Your task to perform on an android device: Open Chrome and go to the settings page Image 0: 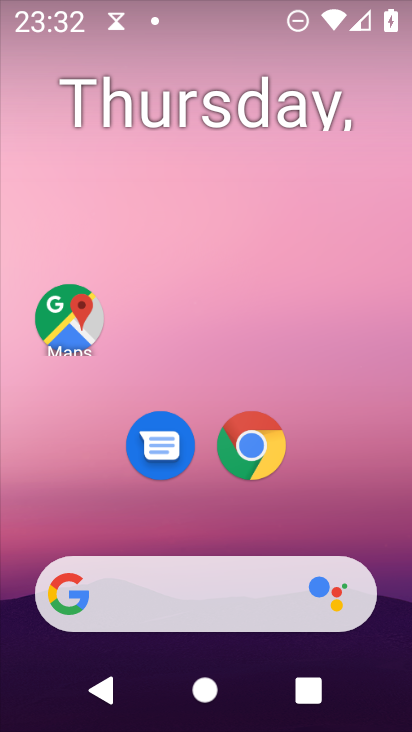
Step 0: click (254, 450)
Your task to perform on an android device: Open Chrome and go to the settings page Image 1: 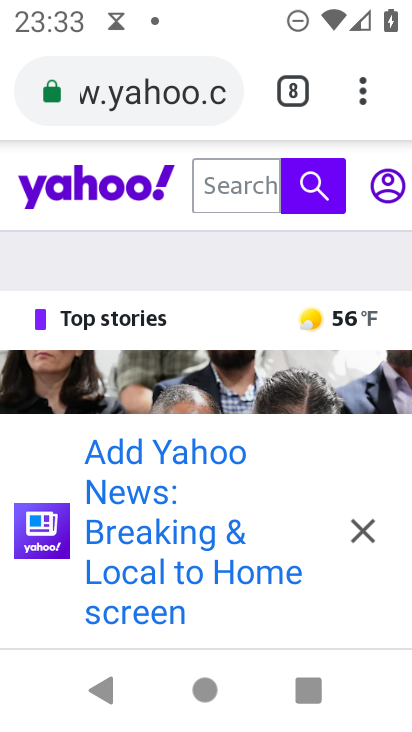
Step 1: click (362, 99)
Your task to perform on an android device: Open Chrome and go to the settings page Image 2: 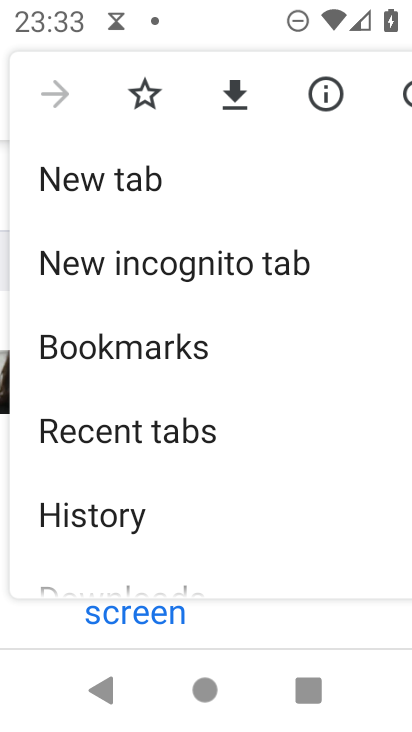
Step 2: drag from (110, 546) to (119, 175)
Your task to perform on an android device: Open Chrome and go to the settings page Image 3: 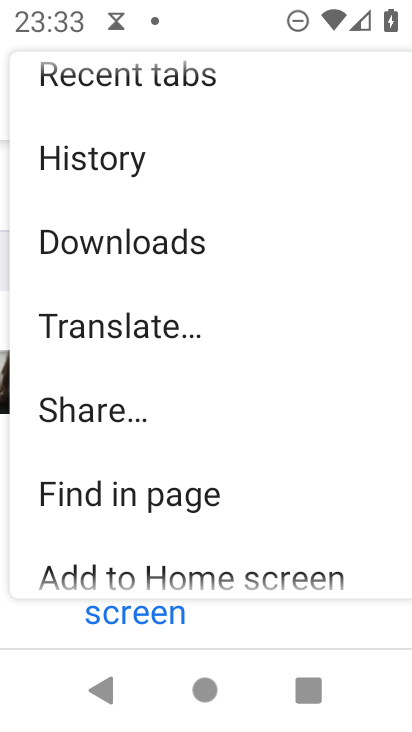
Step 3: drag from (143, 544) to (148, 177)
Your task to perform on an android device: Open Chrome and go to the settings page Image 4: 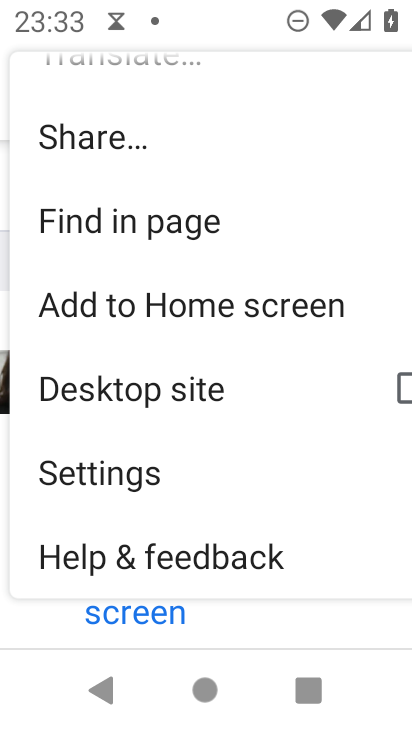
Step 4: click (129, 467)
Your task to perform on an android device: Open Chrome and go to the settings page Image 5: 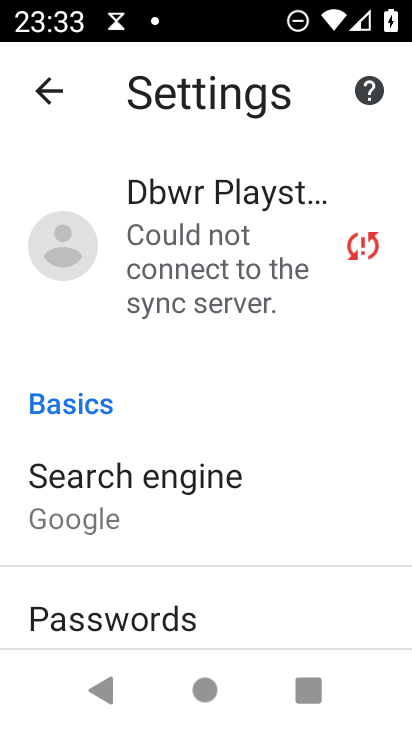
Step 5: task complete